Your task to perform on an android device: Open location settings Image 0: 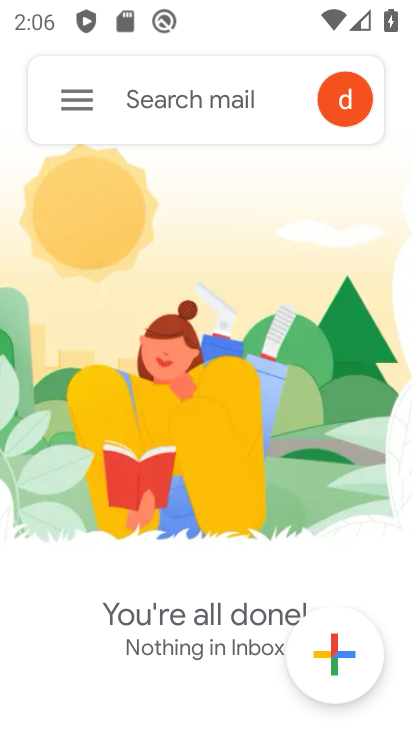
Step 0: press home button
Your task to perform on an android device: Open location settings Image 1: 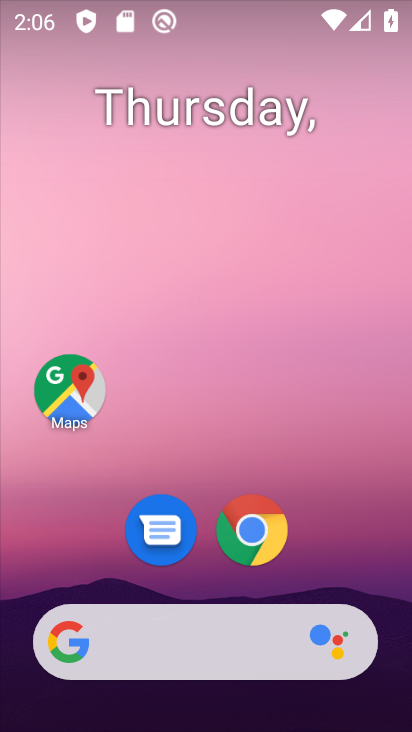
Step 1: drag from (255, 709) to (300, 8)
Your task to perform on an android device: Open location settings Image 2: 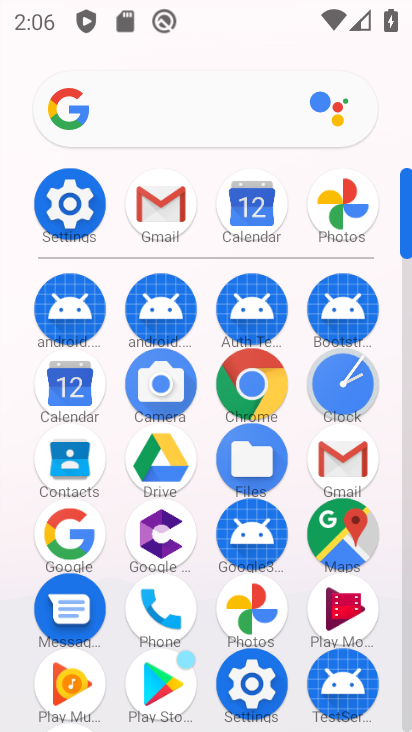
Step 2: click (47, 222)
Your task to perform on an android device: Open location settings Image 3: 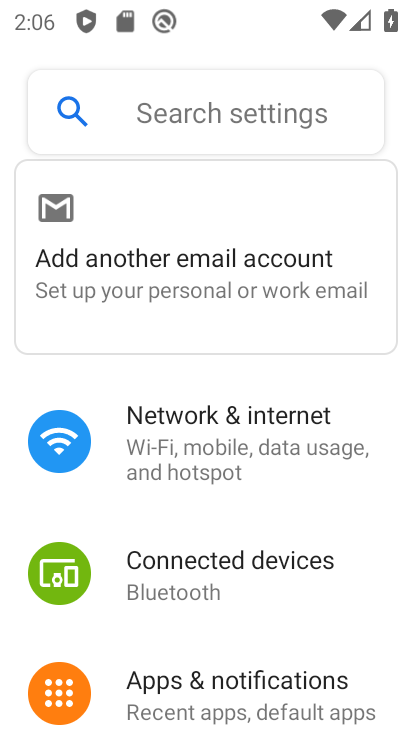
Step 3: drag from (240, 706) to (182, 180)
Your task to perform on an android device: Open location settings Image 4: 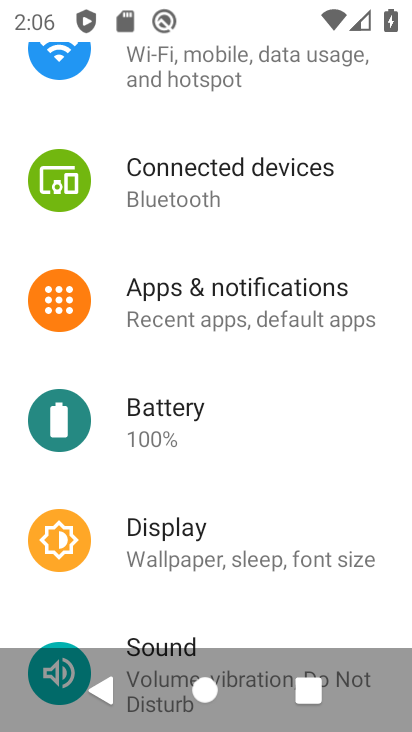
Step 4: drag from (251, 574) to (175, 0)
Your task to perform on an android device: Open location settings Image 5: 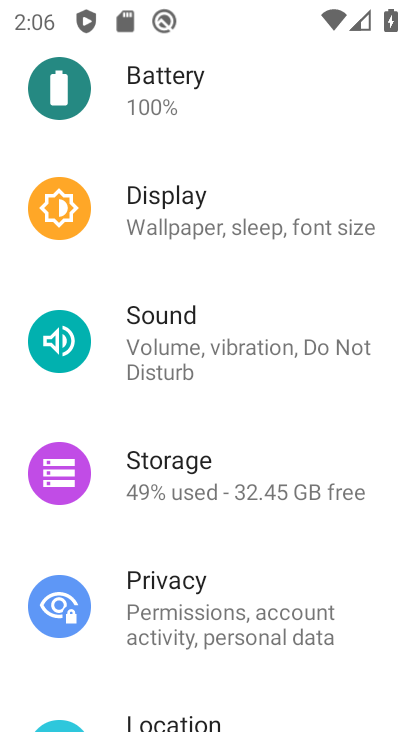
Step 5: drag from (268, 563) to (249, 184)
Your task to perform on an android device: Open location settings Image 6: 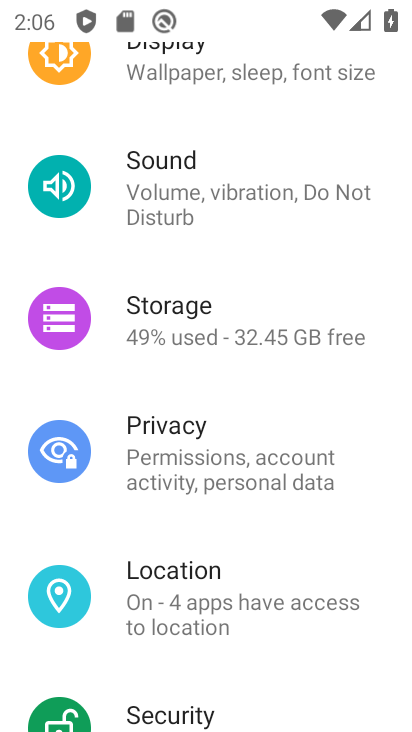
Step 6: click (208, 605)
Your task to perform on an android device: Open location settings Image 7: 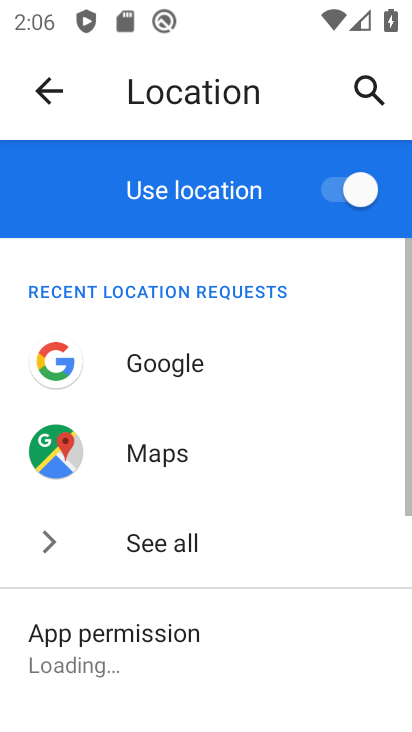
Step 7: task complete